Your task to perform on an android device: Open Youtube and go to the subscriptions tab Image 0: 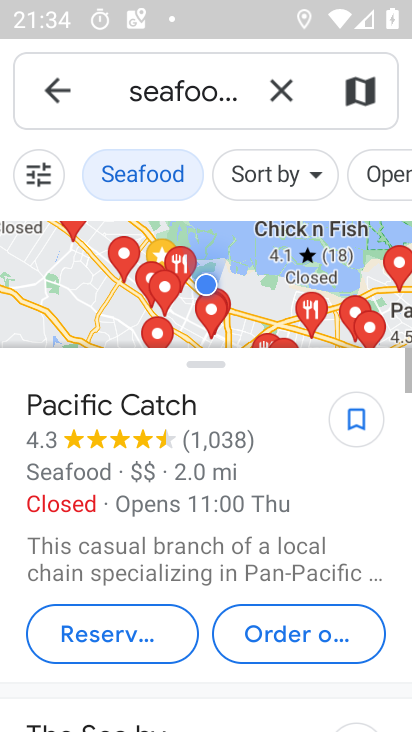
Step 0: press home button
Your task to perform on an android device: Open Youtube and go to the subscriptions tab Image 1: 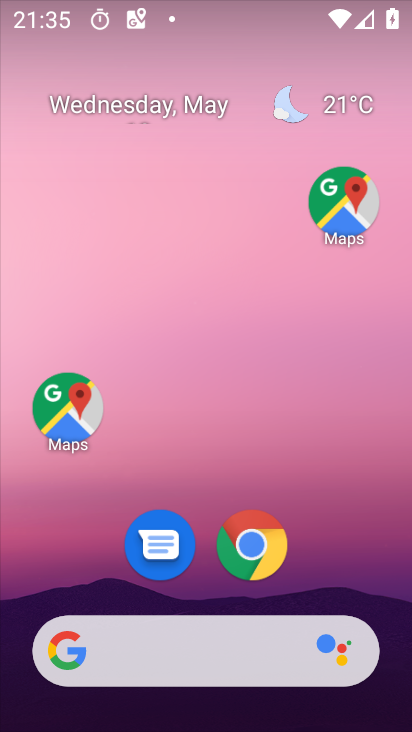
Step 1: drag from (328, 579) to (257, 45)
Your task to perform on an android device: Open Youtube and go to the subscriptions tab Image 2: 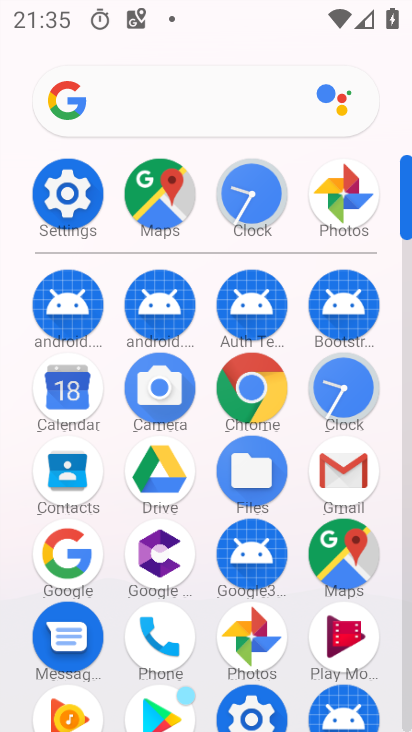
Step 2: drag from (187, 587) to (205, 166)
Your task to perform on an android device: Open Youtube and go to the subscriptions tab Image 3: 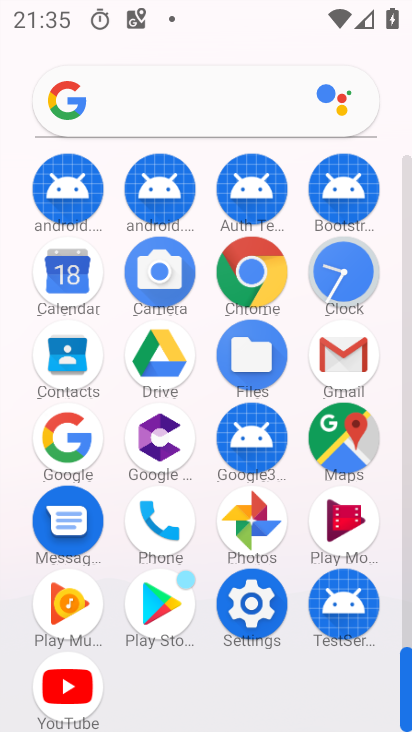
Step 3: click (70, 686)
Your task to perform on an android device: Open Youtube and go to the subscriptions tab Image 4: 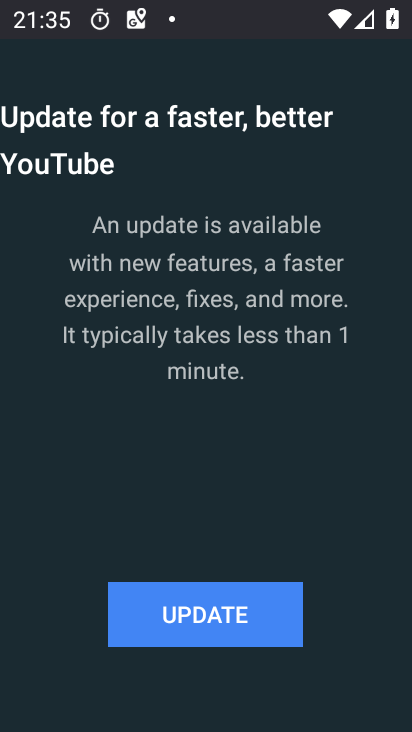
Step 4: click (121, 603)
Your task to perform on an android device: Open Youtube and go to the subscriptions tab Image 5: 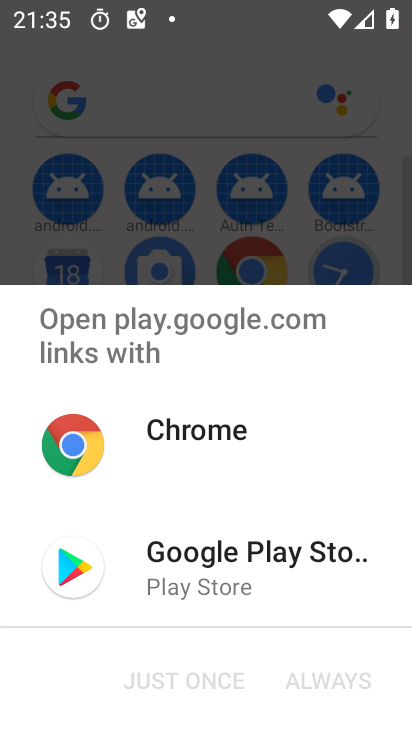
Step 5: click (163, 591)
Your task to perform on an android device: Open Youtube and go to the subscriptions tab Image 6: 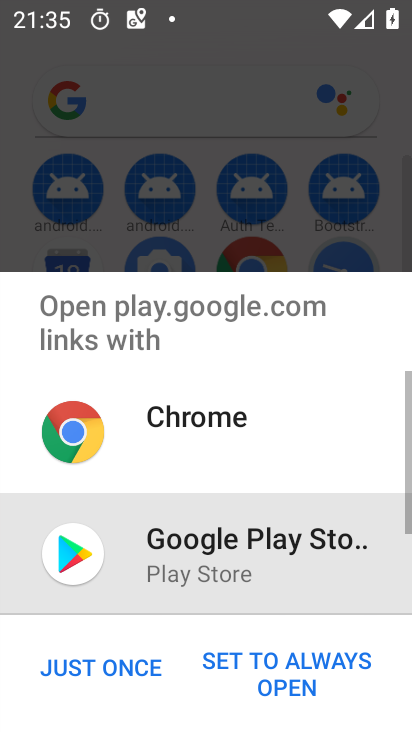
Step 6: click (103, 661)
Your task to perform on an android device: Open Youtube and go to the subscriptions tab Image 7: 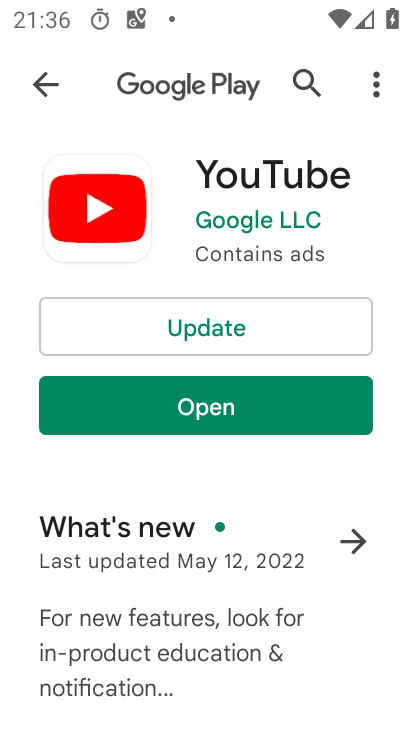
Step 7: click (238, 327)
Your task to perform on an android device: Open Youtube and go to the subscriptions tab Image 8: 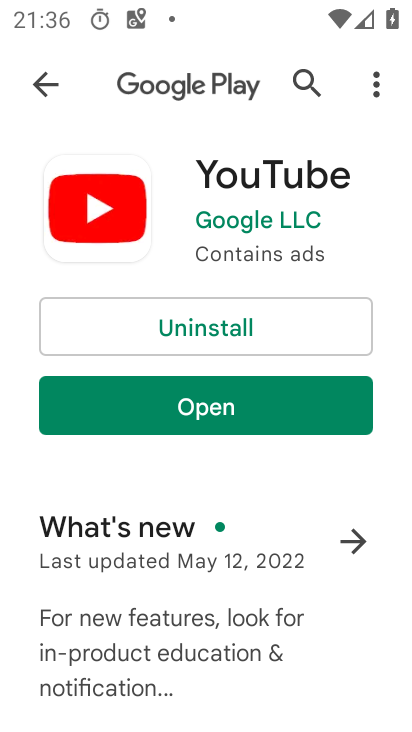
Step 8: click (182, 405)
Your task to perform on an android device: Open Youtube and go to the subscriptions tab Image 9: 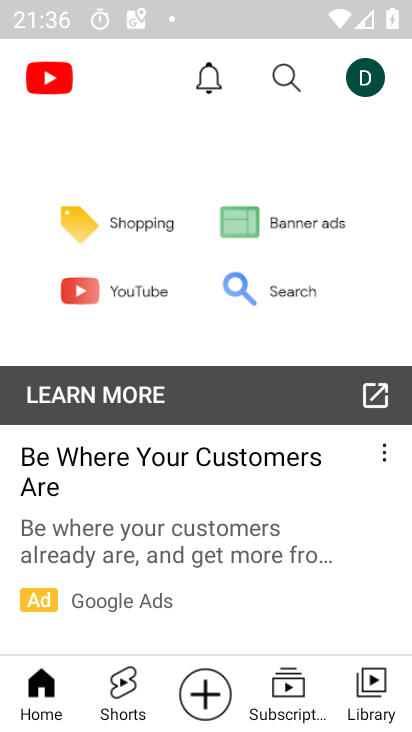
Step 9: click (272, 695)
Your task to perform on an android device: Open Youtube and go to the subscriptions tab Image 10: 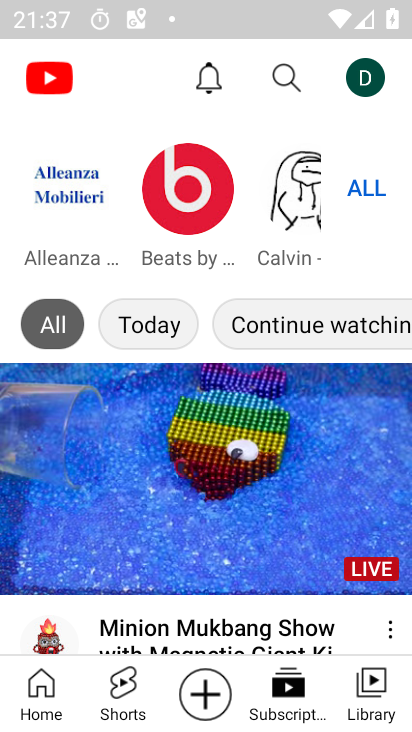
Step 10: task complete